Your task to perform on an android device: turn on showing notifications on the lock screen Image 0: 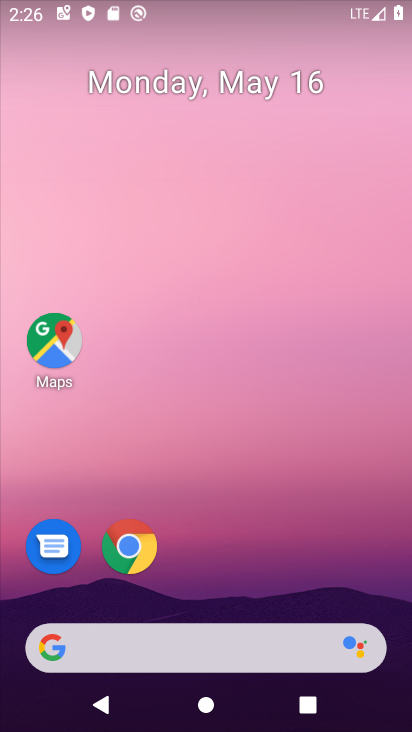
Step 0: drag from (259, 669) to (220, 228)
Your task to perform on an android device: turn on showing notifications on the lock screen Image 1: 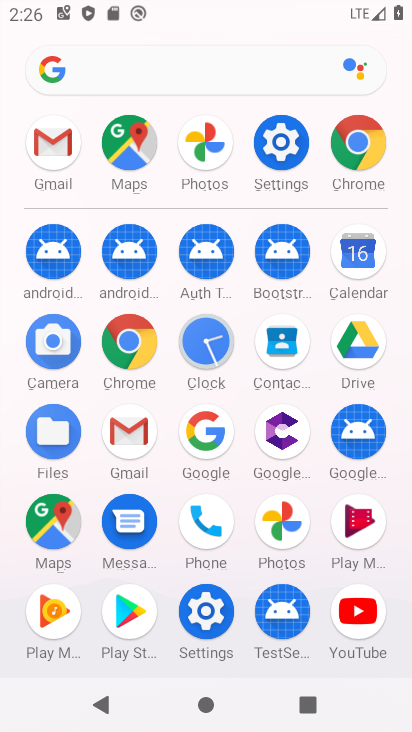
Step 1: click (265, 169)
Your task to perform on an android device: turn on showing notifications on the lock screen Image 2: 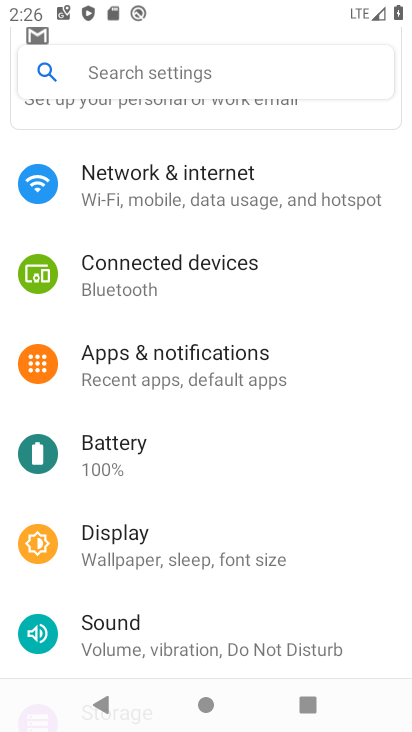
Step 2: click (194, 82)
Your task to perform on an android device: turn on showing notifications on the lock screen Image 3: 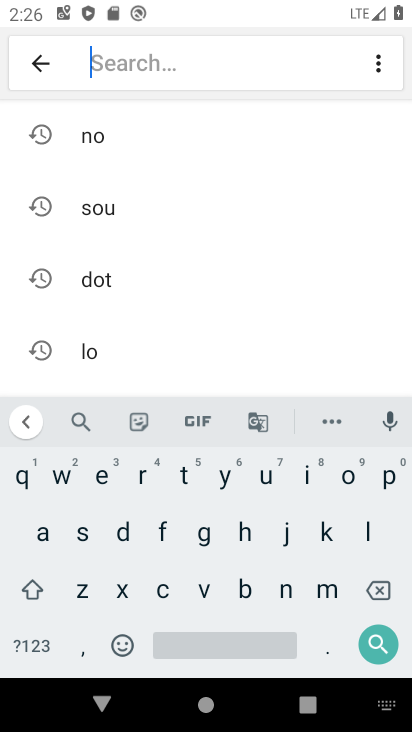
Step 3: click (288, 590)
Your task to perform on an android device: turn on showing notifications on the lock screen Image 4: 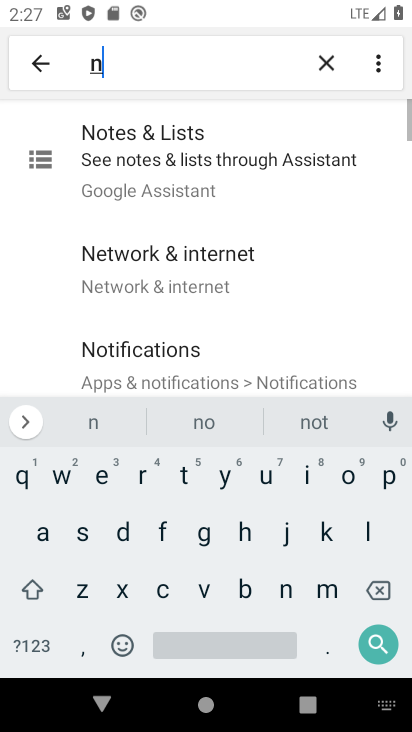
Step 4: click (341, 481)
Your task to perform on an android device: turn on showing notifications on the lock screen Image 5: 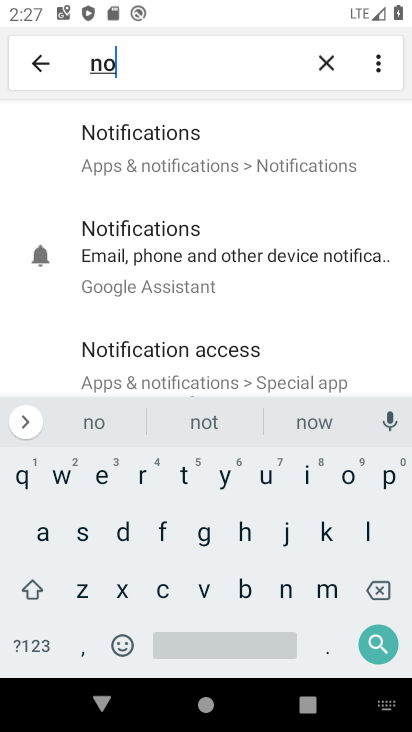
Step 5: click (165, 154)
Your task to perform on an android device: turn on showing notifications on the lock screen Image 6: 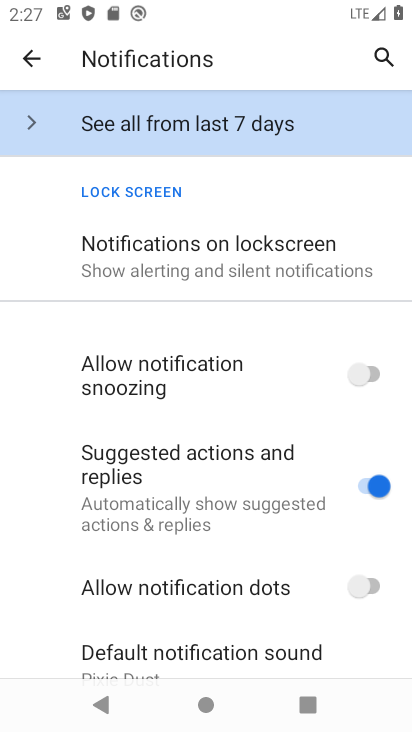
Step 6: click (143, 257)
Your task to perform on an android device: turn on showing notifications on the lock screen Image 7: 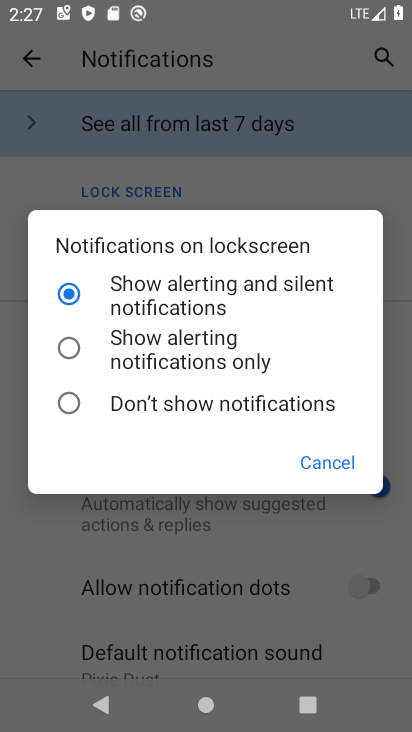
Step 7: task complete